Your task to perform on an android device: Show me productivity apps on the Play Store Image 0: 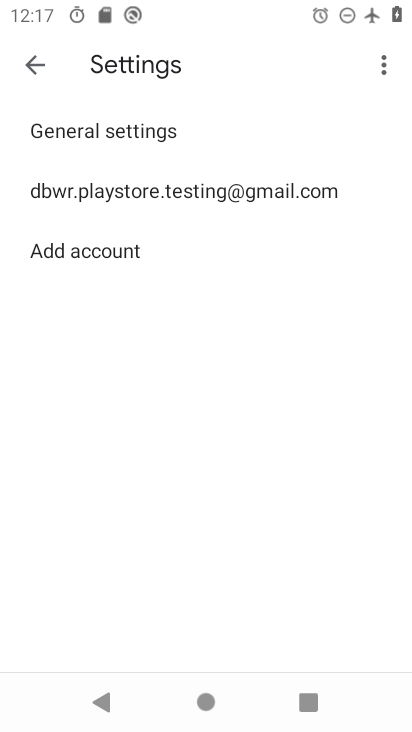
Step 0: press home button
Your task to perform on an android device: Show me productivity apps on the Play Store Image 1: 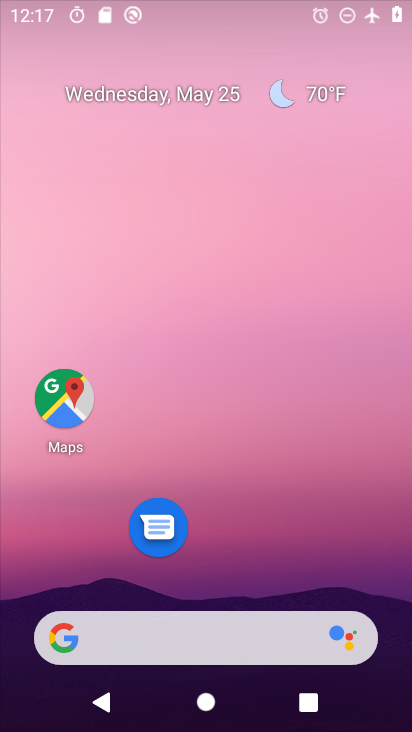
Step 1: drag from (245, 560) to (264, 122)
Your task to perform on an android device: Show me productivity apps on the Play Store Image 2: 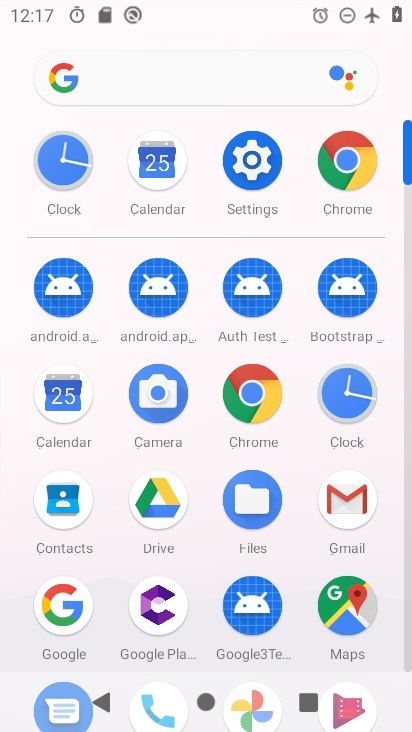
Step 2: drag from (109, 602) to (117, 218)
Your task to perform on an android device: Show me productivity apps on the Play Store Image 3: 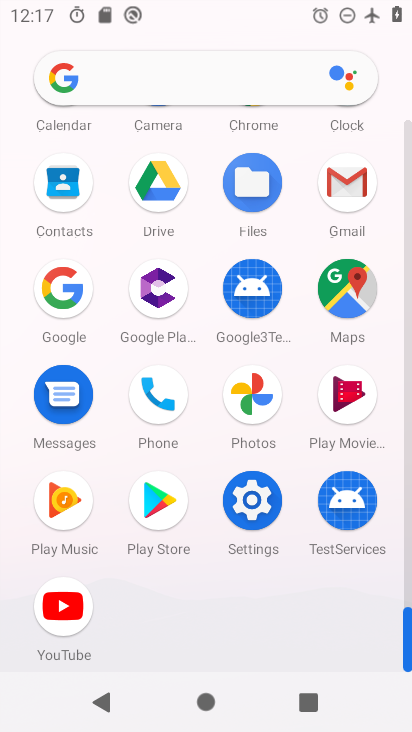
Step 3: click (160, 500)
Your task to perform on an android device: Show me productivity apps on the Play Store Image 4: 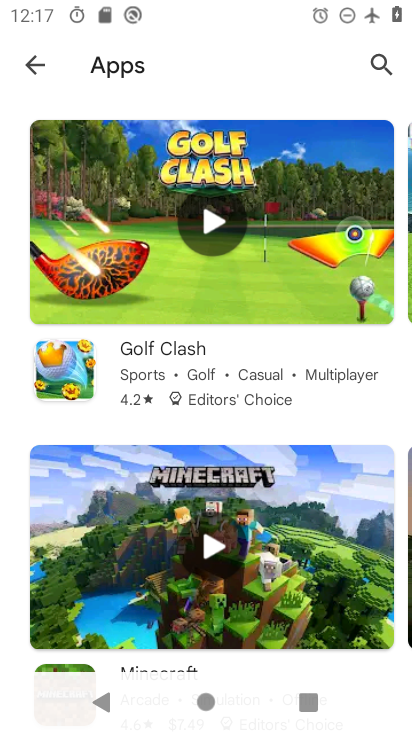
Step 4: press back button
Your task to perform on an android device: Show me productivity apps on the Play Store Image 5: 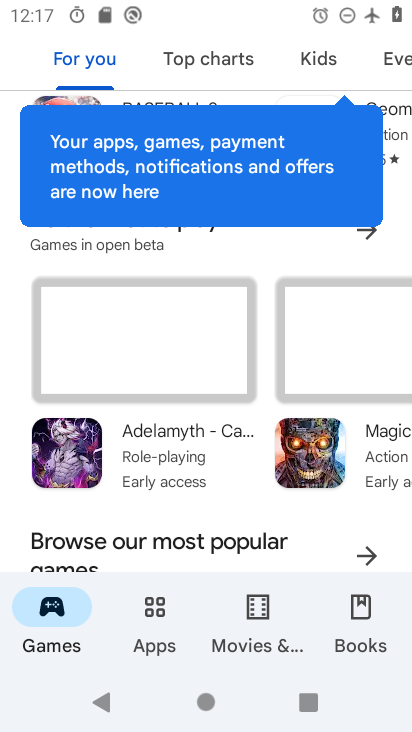
Step 5: click (173, 622)
Your task to perform on an android device: Show me productivity apps on the Play Store Image 6: 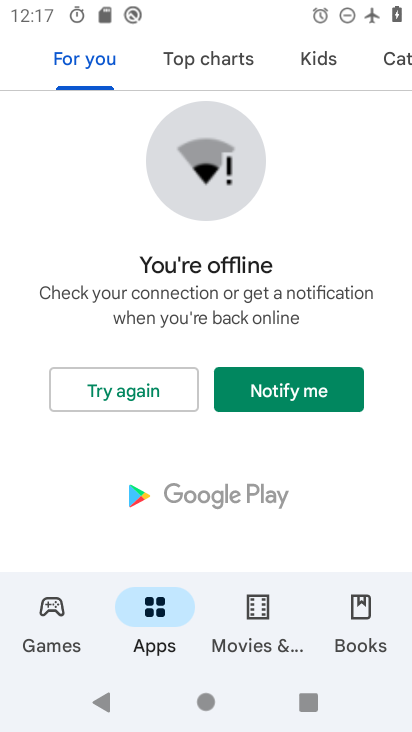
Step 6: drag from (344, 69) to (17, 64)
Your task to perform on an android device: Show me productivity apps on the Play Store Image 7: 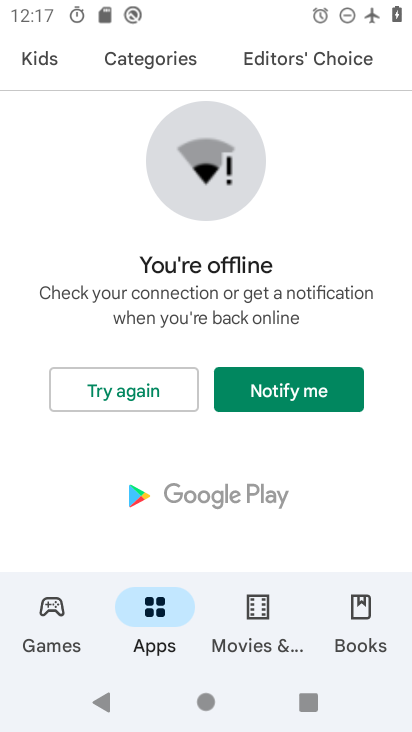
Step 7: click (159, 55)
Your task to perform on an android device: Show me productivity apps on the Play Store Image 8: 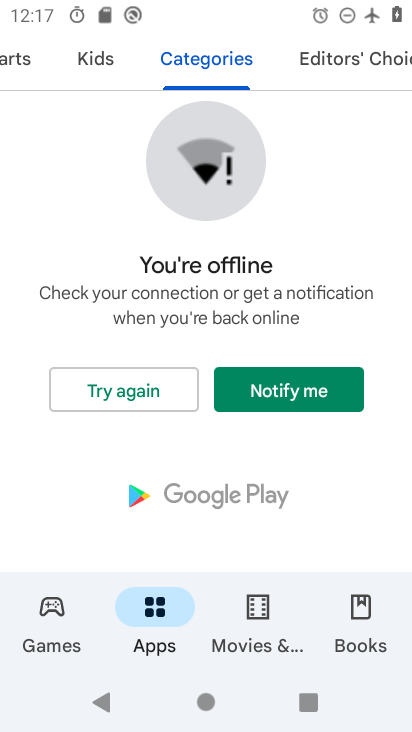
Step 8: task complete